Your task to perform on an android device: Go to internet settings Image 0: 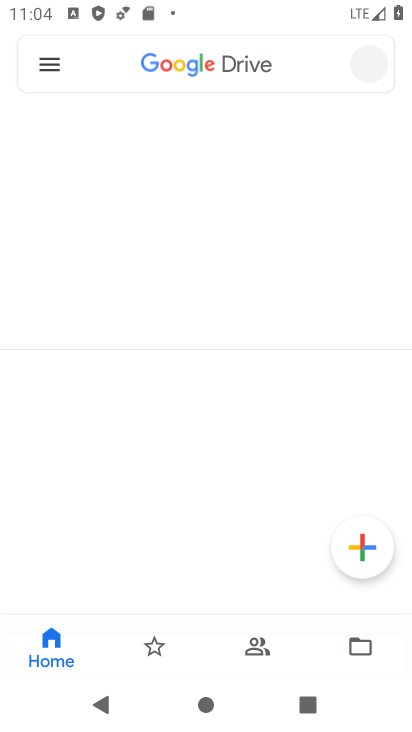
Step 0: click (125, 540)
Your task to perform on an android device: Go to internet settings Image 1: 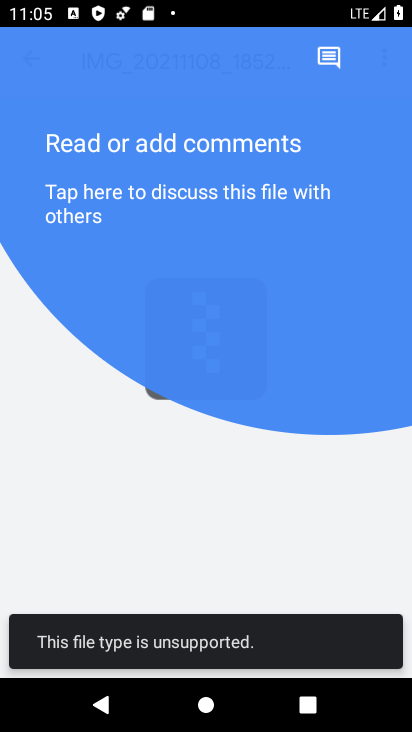
Step 1: press home button
Your task to perform on an android device: Go to internet settings Image 2: 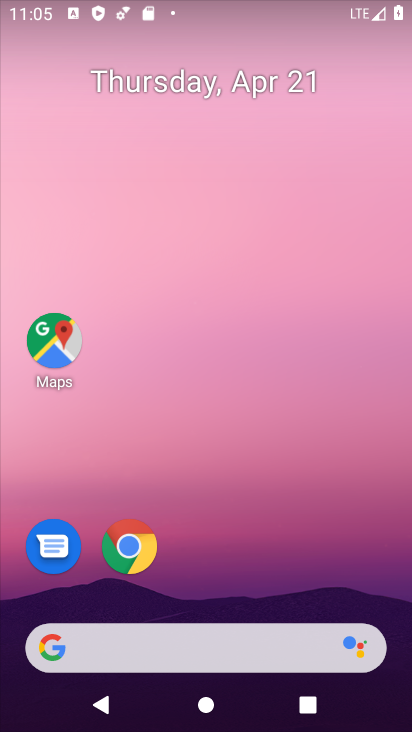
Step 2: drag from (355, 598) to (361, 90)
Your task to perform on an android device: Go to internet settings Image 3: 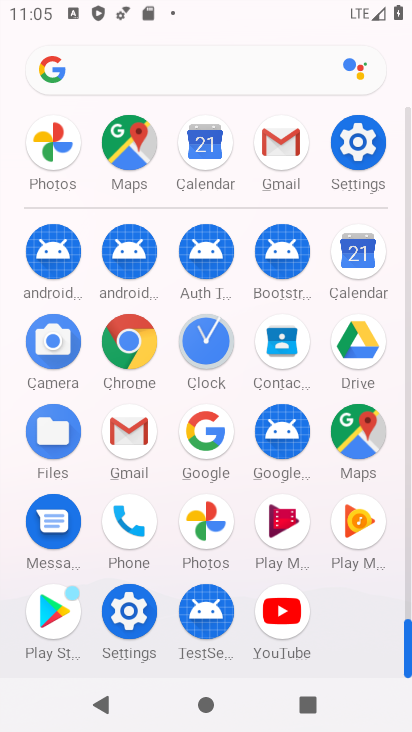
Step 3: click (128, 608)
Your task to perform on an android device: Go to internet settings Image 4: 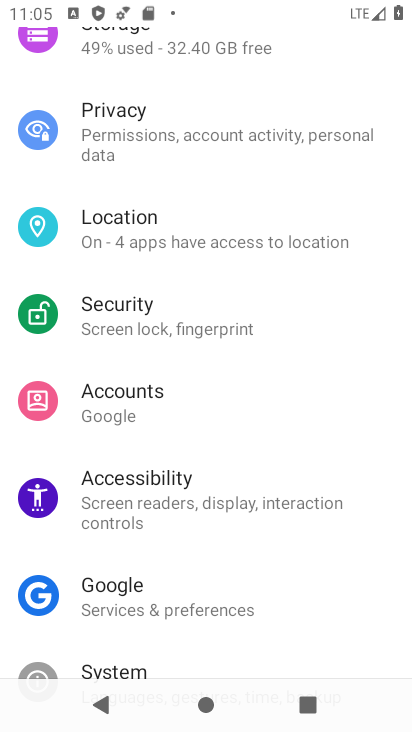
Step 4: drag from (368, 200) to (342, 502)
Your task to perform on an android device: Go to internet settings Image 5: 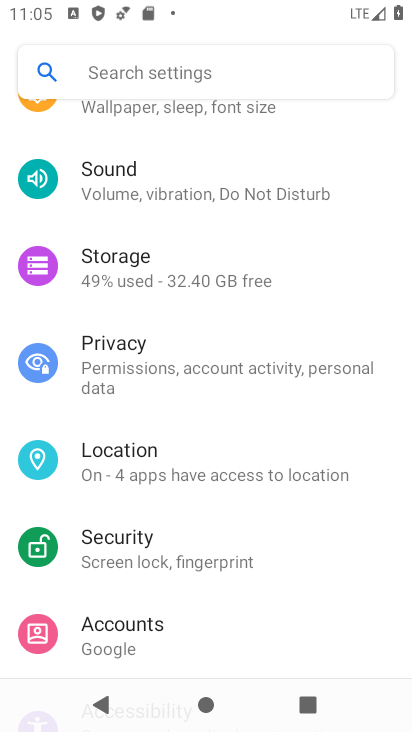
Step 5: drag from (334, 181) to (368, 463)
Your task to perform on an android device: Go to internet settings Image 6: 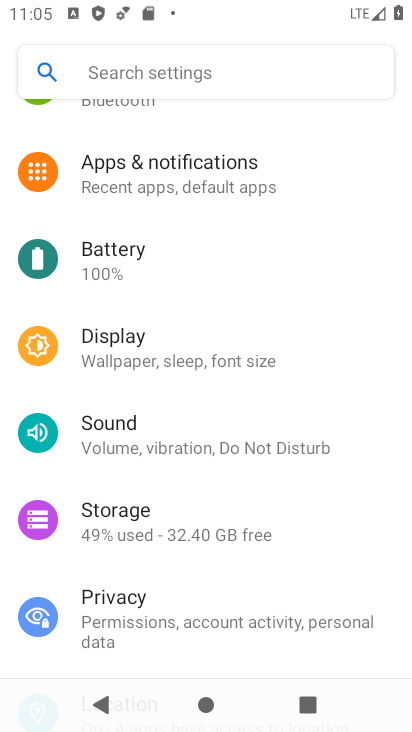
Step 6: drag from (290, 199) to (300, 487)
Your task to perform on an android device: Go to internet settings Image 7: 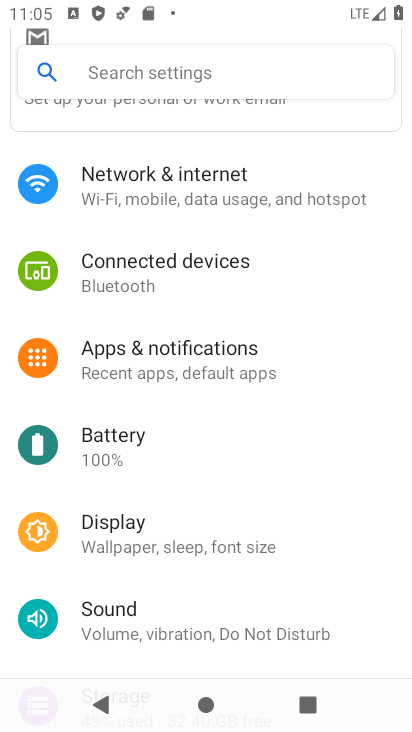
Step 7: click (147, 189)
Your task to perform on an android device: Go to internet settings Image 8: 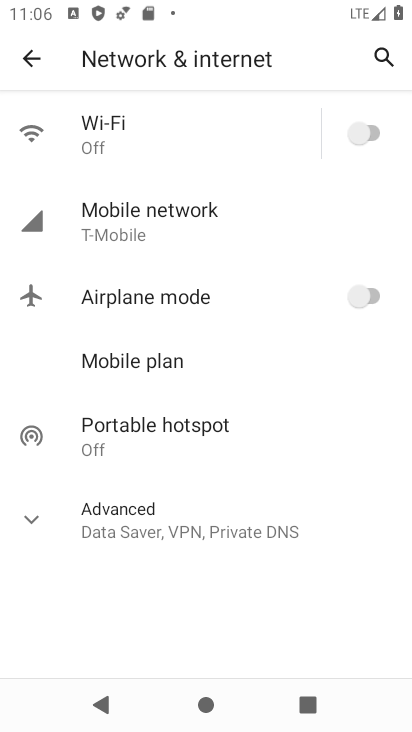
Step 8: click (136, 207)
Your task to perform on an android device: Go to internet settings Image 9: 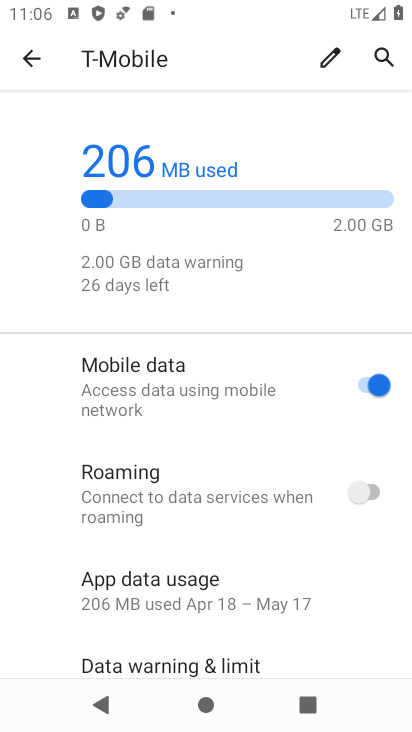
Step 9: task complete